Your task to perform on an android device: Search for a 4k TV on Best Buy Image 0: 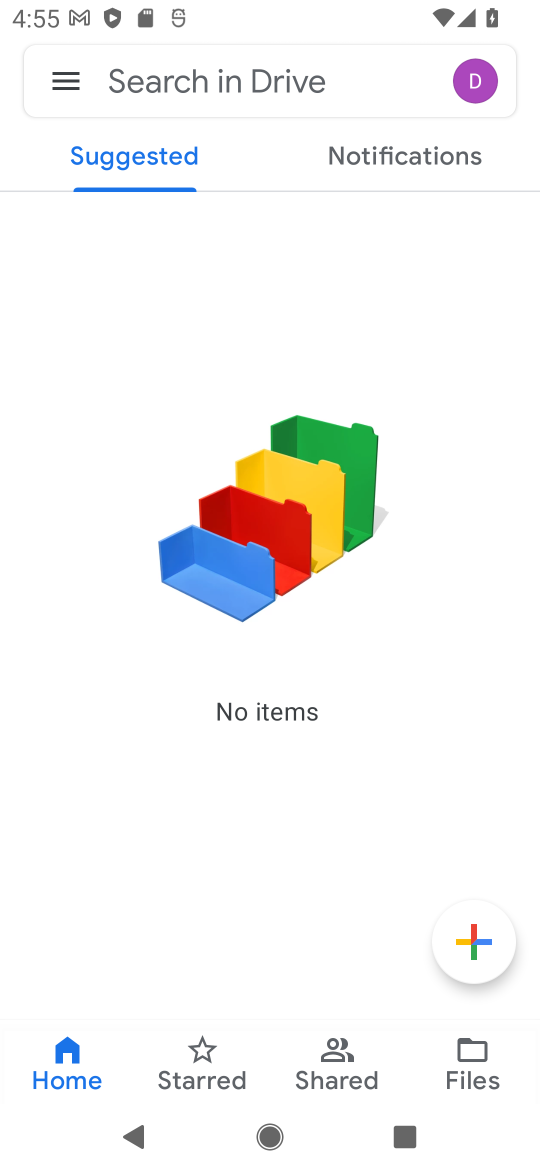
Step 0: press home button
Your task to perform on an android device: Search for a 4k TV on Best Buy Image 1: 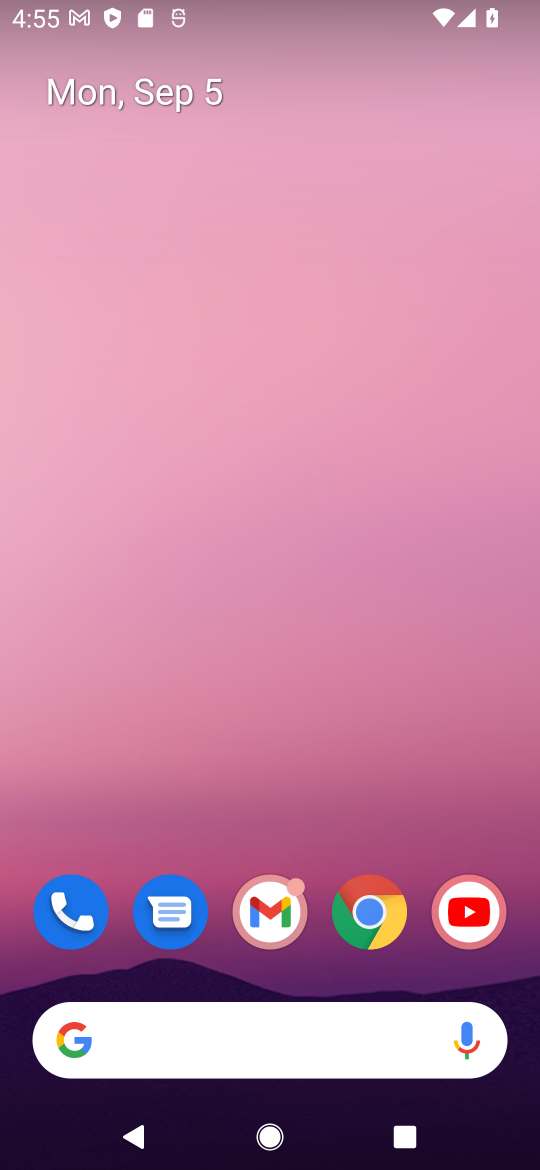
Step 1: click (343, 917)
Your task to perform on an android device: Search for a 4k TV on Best Buy Image 2: 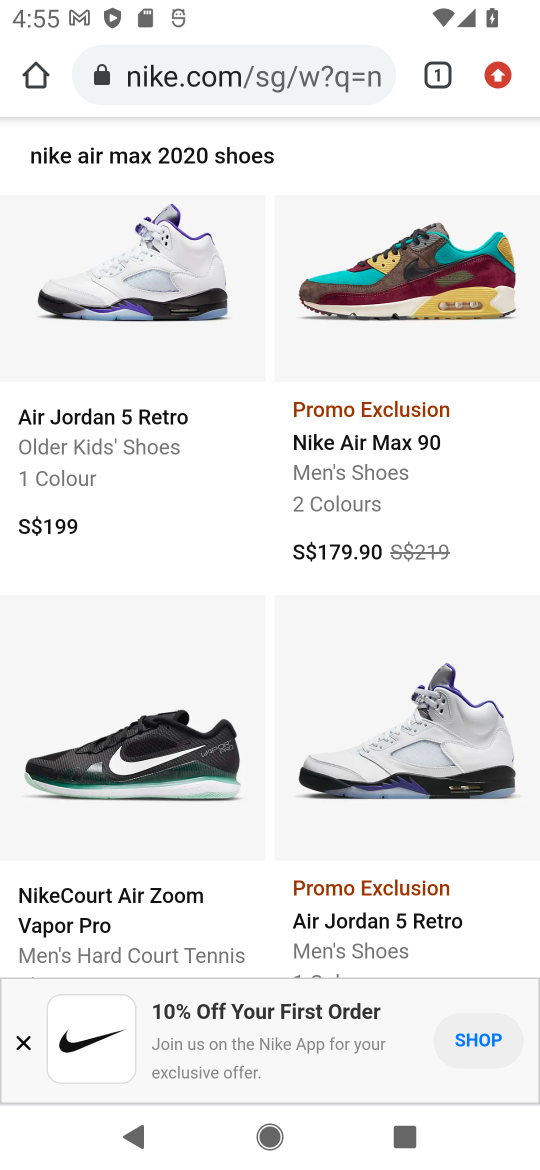
Step 2: click (226, 65)
Your task to perform on an android device: Search for a 4k TV on Best Buy Image 3: 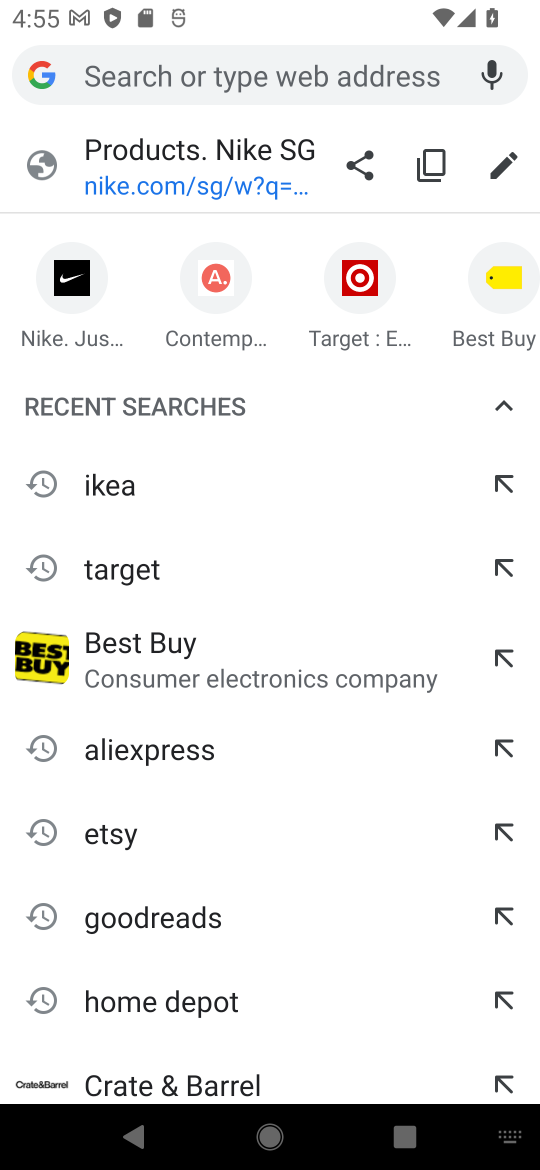
Step 3: type "best buy"
Your task to perform on an android device: Search for a 4k TV on Best Buy Image 4: 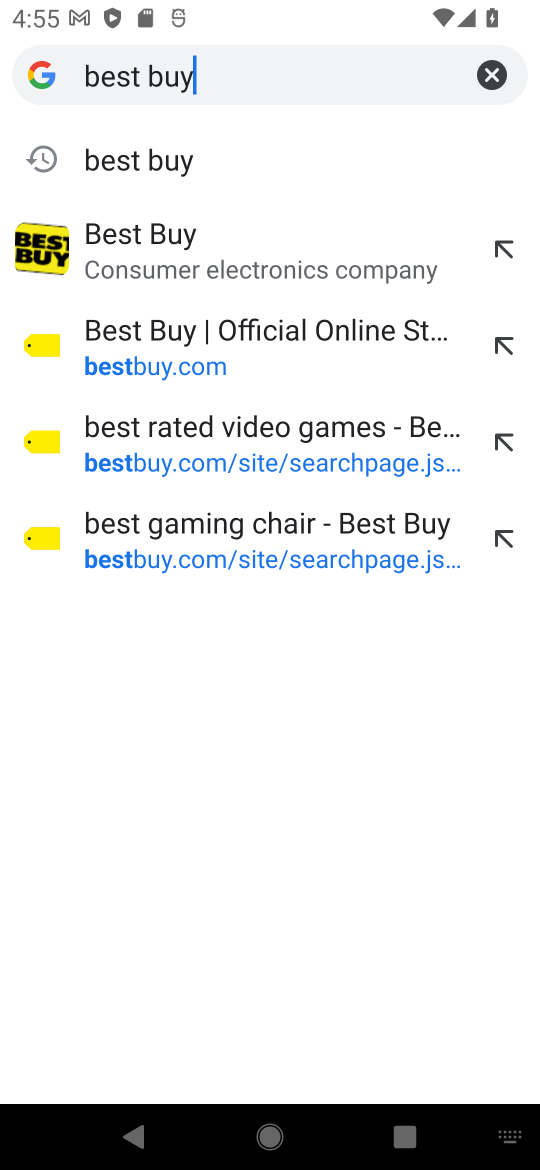
Step 4: press enter
Your task to perform on an android device: Search for a 4k TV on Best Buy Image 5: 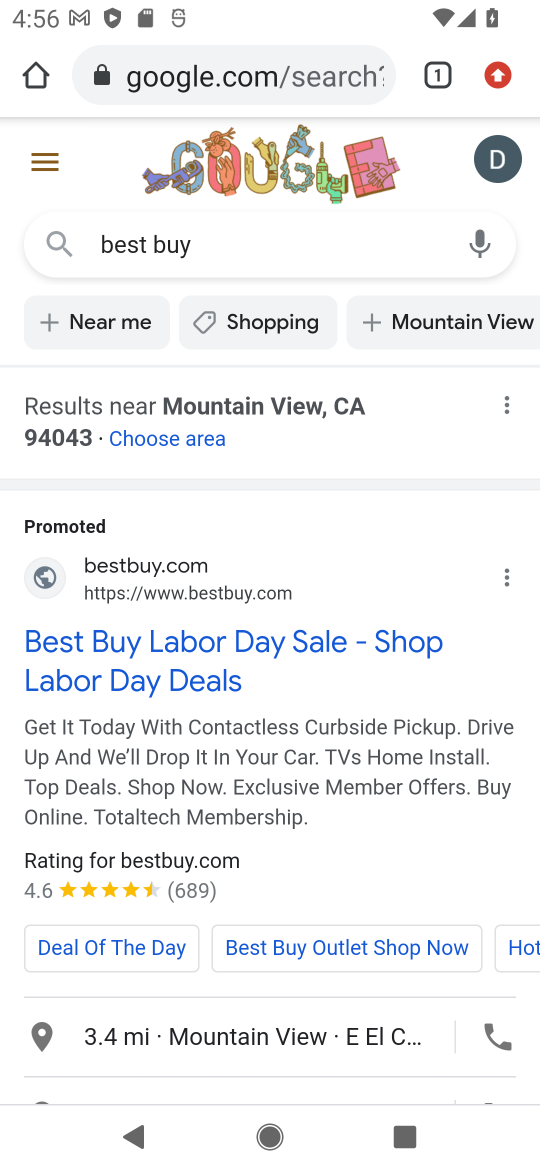
Step 5: click (98, 654)
Your task to perform on an android device: Search for a 4k TV on Best Buy Image 6: 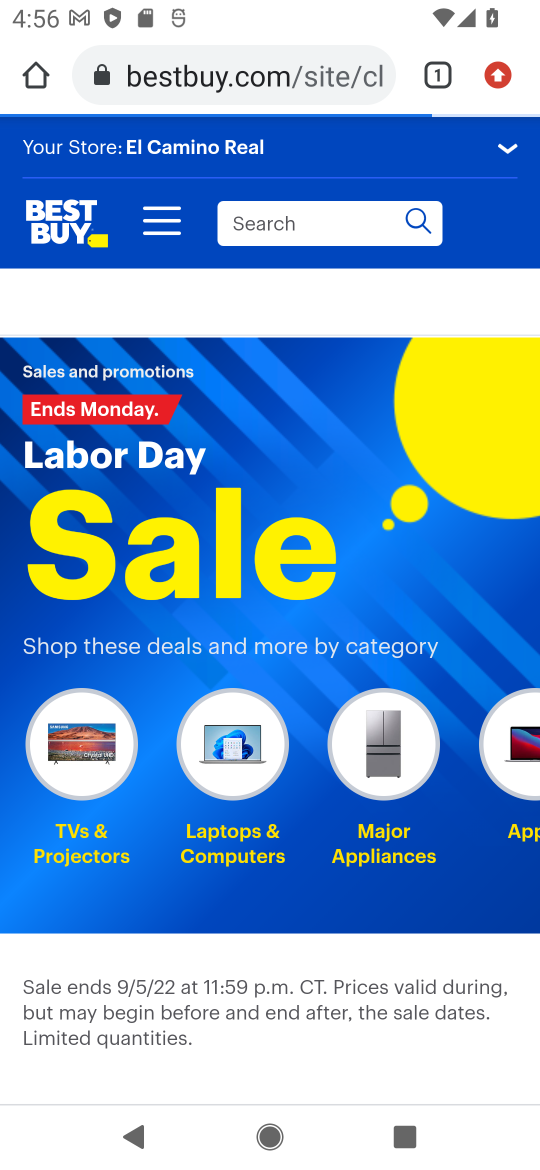
Step 6: click (358, 224)
Your task to perform on an android device: Search for a 4k TV on Best Buy Image 7: 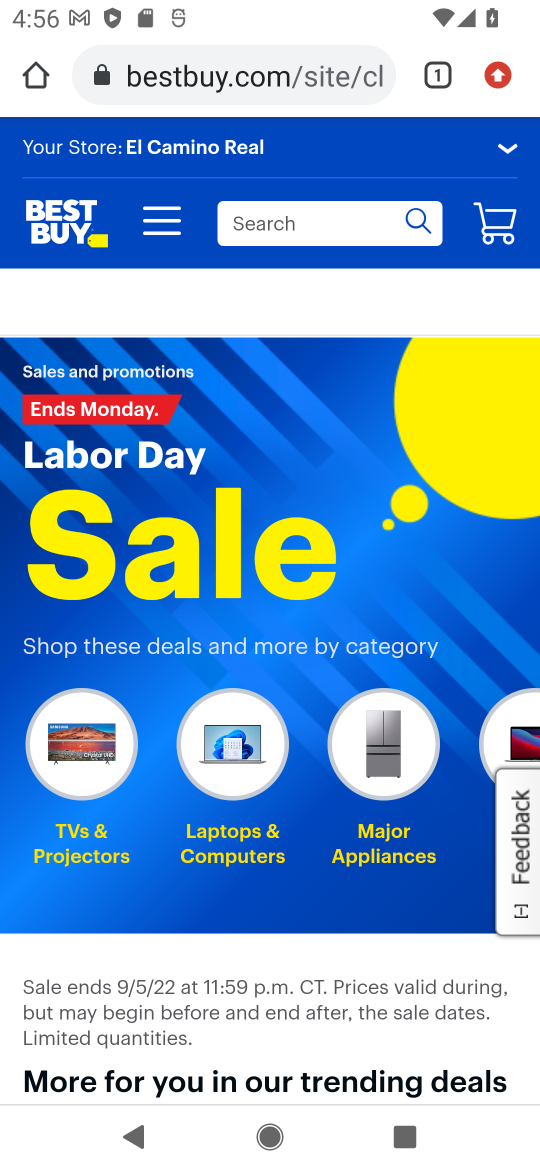
Step 7: click (368, 233)
Your task to perform on an android device: Search for a 4k TV on Best Buy Image 8: 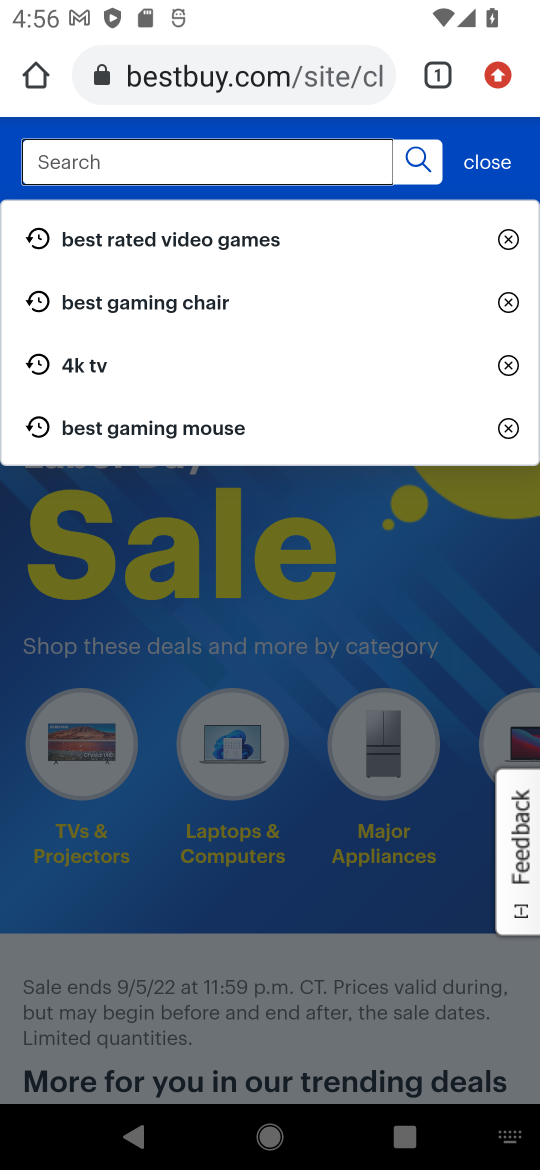
Step 8: type "4k tv"
Your task to perform on an android device: Search for a 4k TV on Best Buy Image 9: 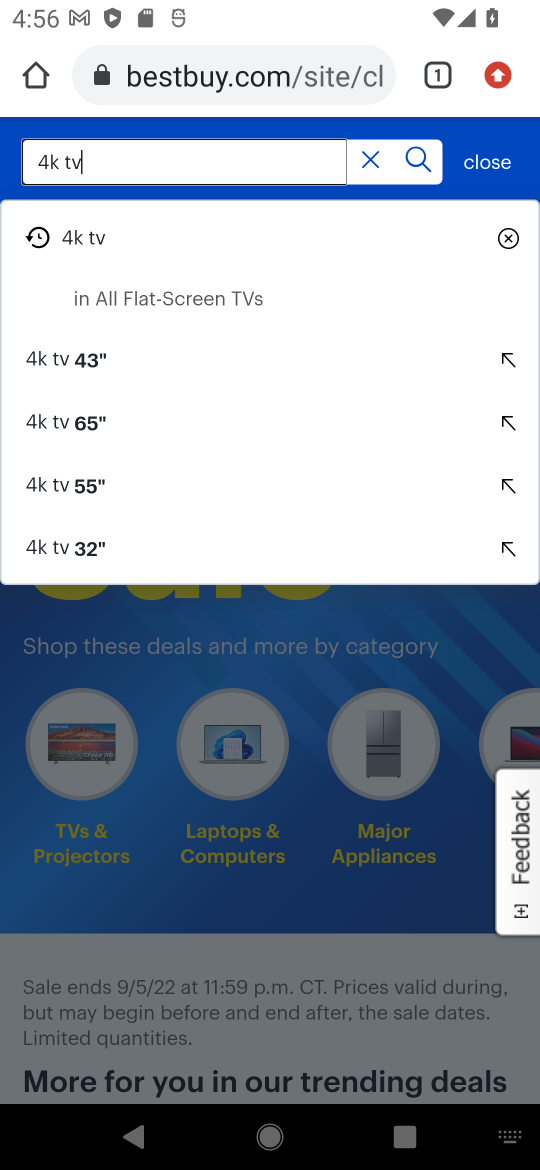
Step 9: press enter
Your task to perform on an android device: Search for a 4k TV on Best Buy Image 10: 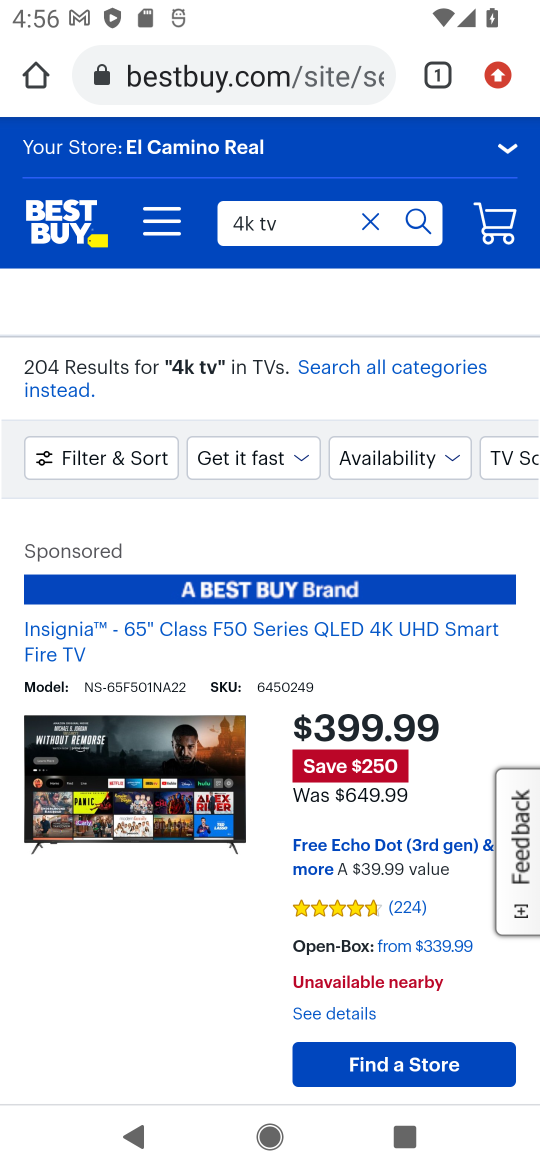
Step 10: task complete